Your task to perform on an android device: change the clock display to digital Image 0: 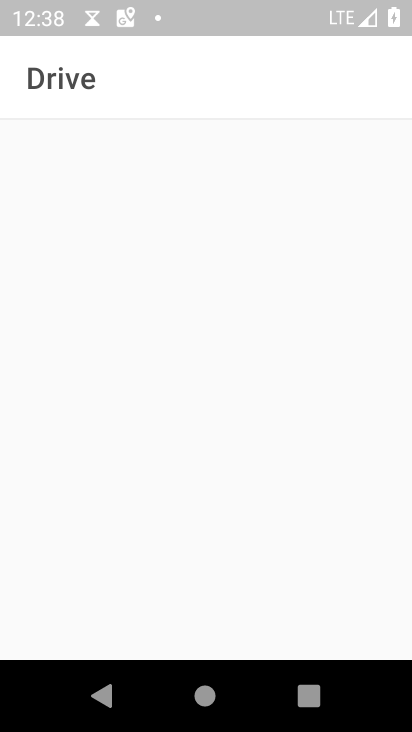
Step 0: press home button
Your task to perform on an android device: change the clock display to digital Image 1: 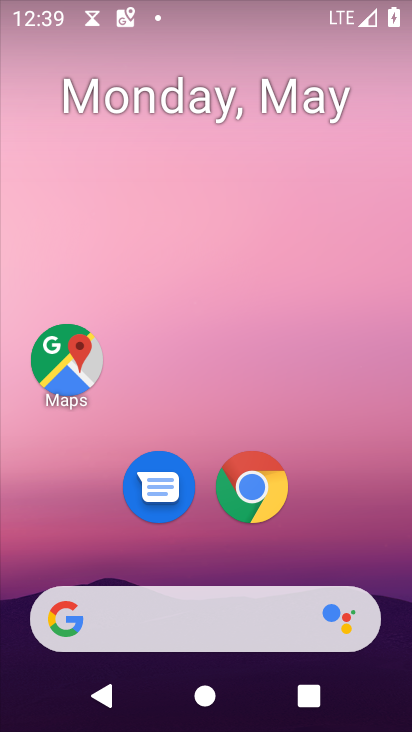
Step 1: drag from (209, 471) to (218, 41)
Your task to perform on an android device: change the clock display to digital Image 2: 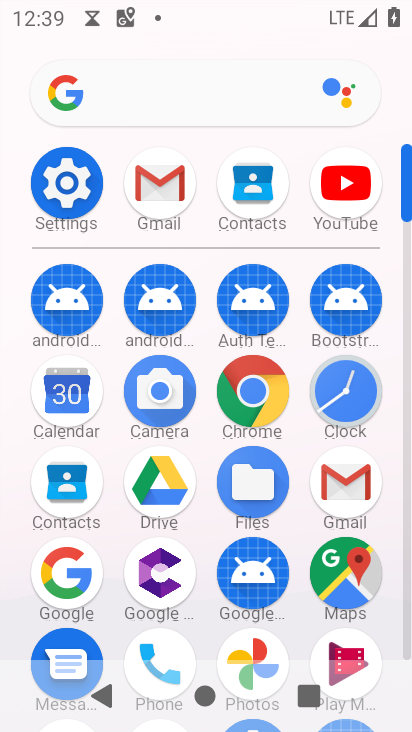
Step 2: click (352, 398)
Your task to perform on an android device: change the clock display to digital Image 3: 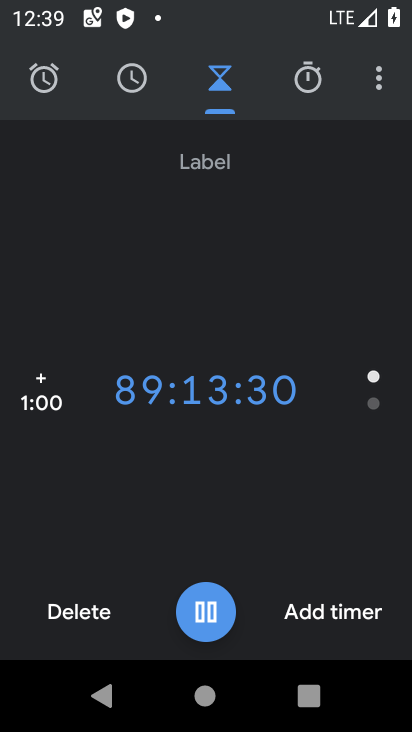
Step 3: click (372, 79)
Your task to perform on an android device: change the clock display to digital Image 4: 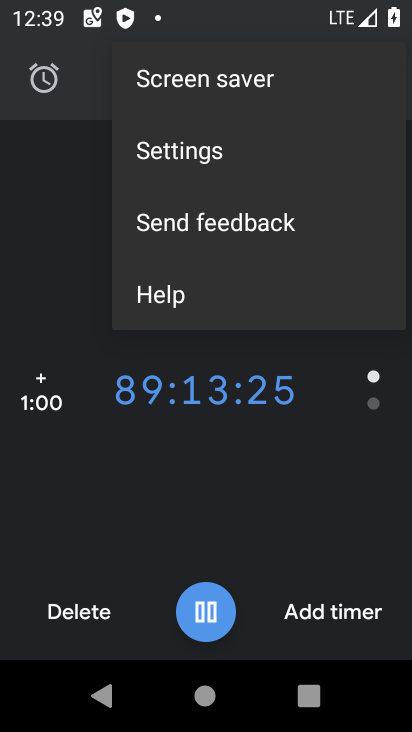
Step 4: click (166, 163)
Your task to perform on an android device: change the clock display to digital Image 5: 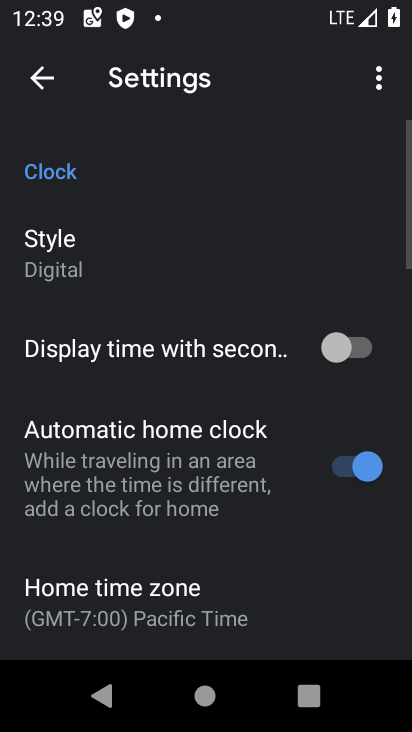
Step 5: click (80, 275)
Your task to perform on an android device: change the clock display to digital Image 6: 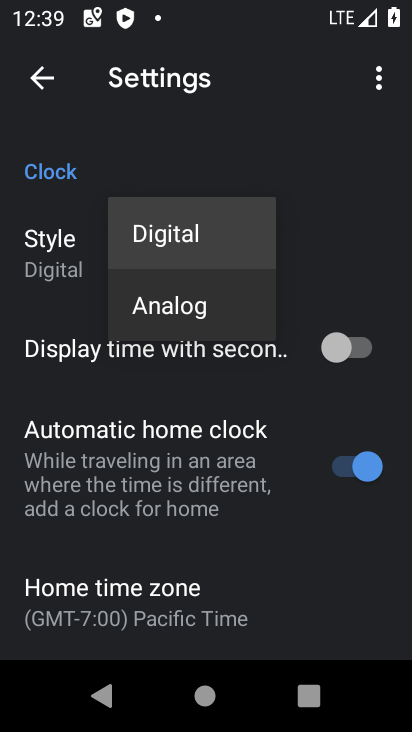
Step 6: click (184, 231)
Your task to perform on an android device: change the clock display to digital Image 7: 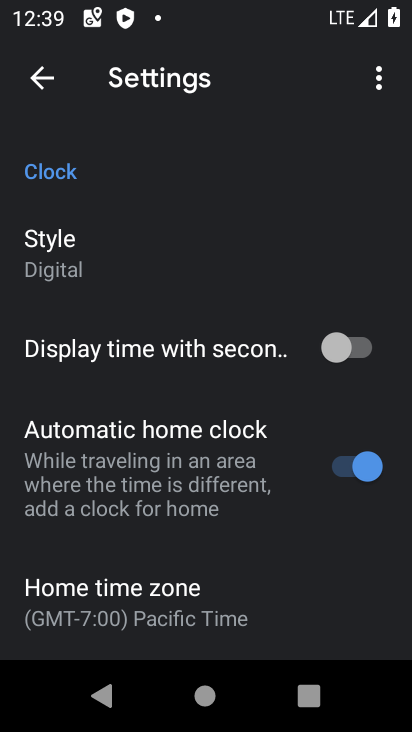
Step 7: task complete